Your task to perform on an android device: turn off improve location accuracy Image 0: 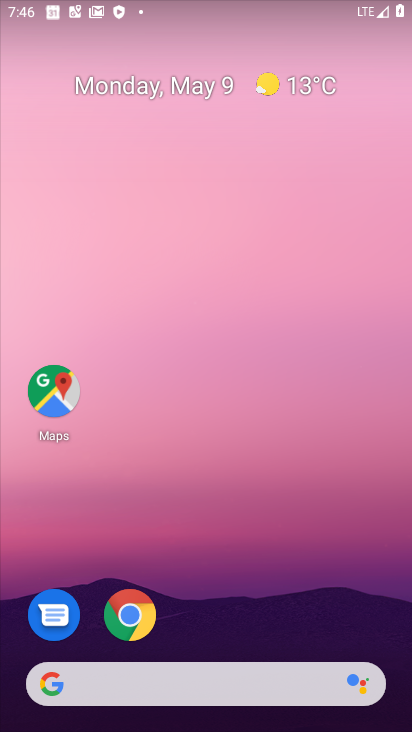
Step 0: drag from (200, 607) to (296, 22)
Your task to perform on an android device: turn off improve location accuracy Image 1: 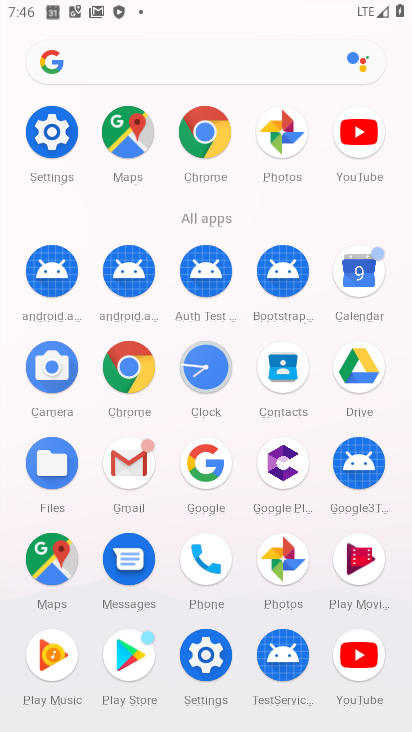
Step 1: click (44, 137)
Your task to perform on an android device: turn off improve location accuracy Image 2: 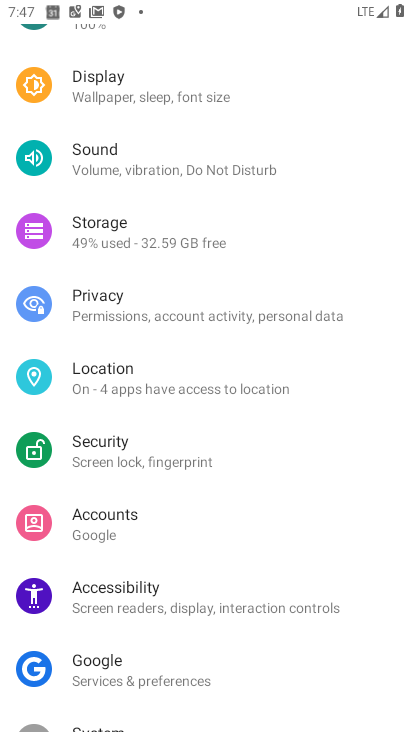
Step 2: click (169, 368)
Your task to perform on an android device: turn off improve location accuracy Image 3: 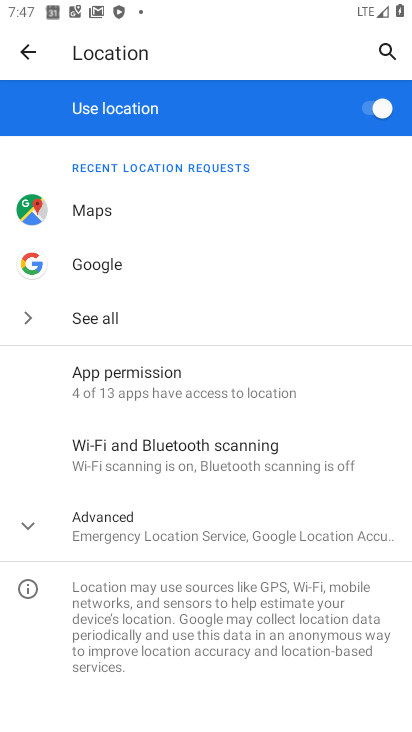
Step 3: click (134, 516)
Your task to perform on an android device: turn off improve location accuracy Image 4: 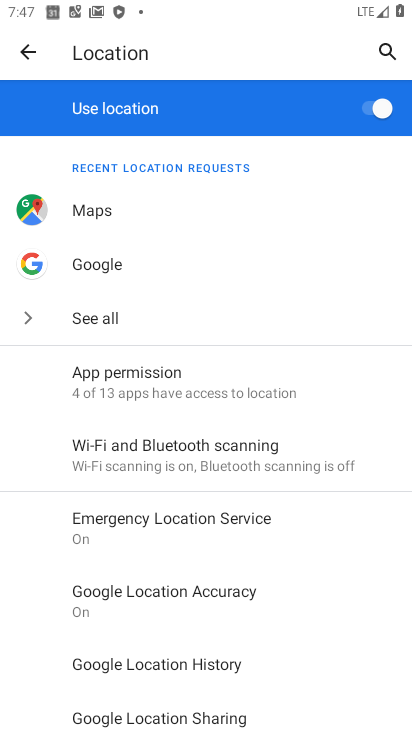
Step 4: click (129, 594)
Your task to perform on an android device: turn off improve location accuracy Image 5: 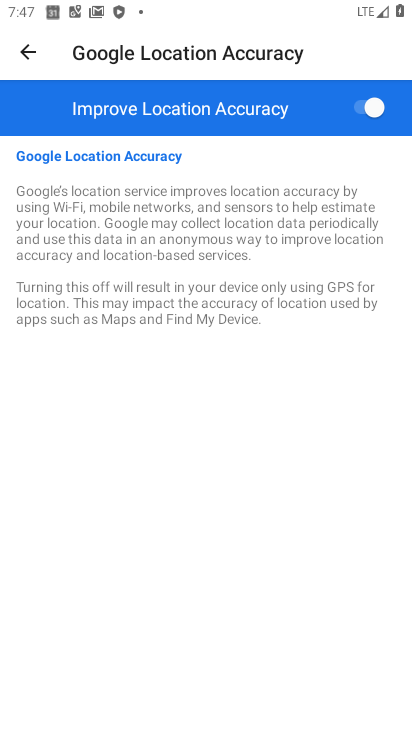
Step 5: click (369, 103)
Your task to perform on an android device: turn off improve location accuracy Image 6: 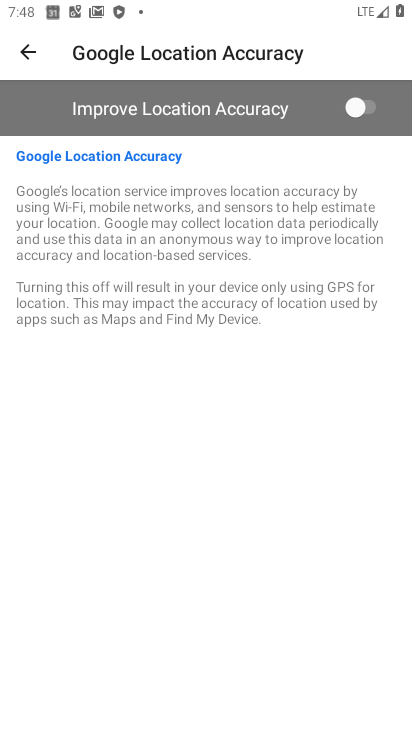
Step 6: task complete